Your task to perform on an android device: Open location settings Image 0: 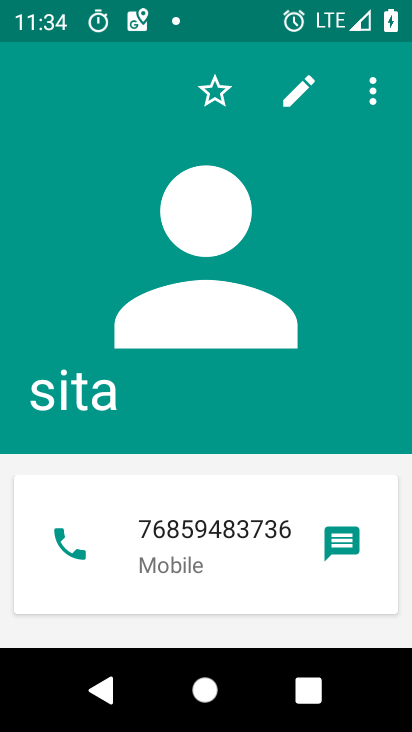
Step 0: press home button
Your task to perform on an android device: Open location settings Image 1: 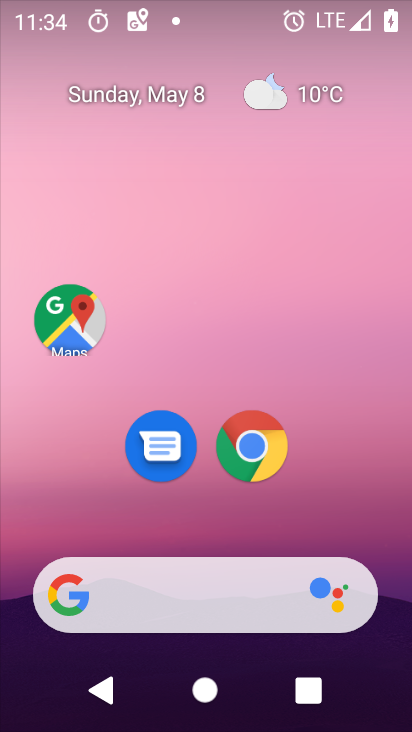
Step 1: drag from (367, 546) to (387, 15)
Your task to perform on an android device: Open location settings Image 2: 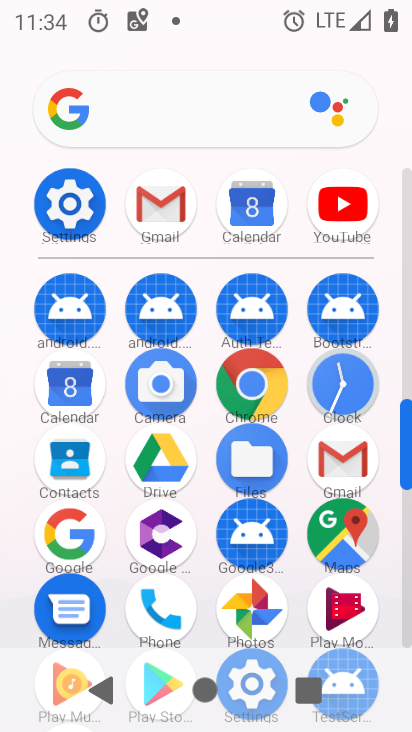
Step 2: click (66, 207)
Your task to perform on an android device: Open location settings Image 3: 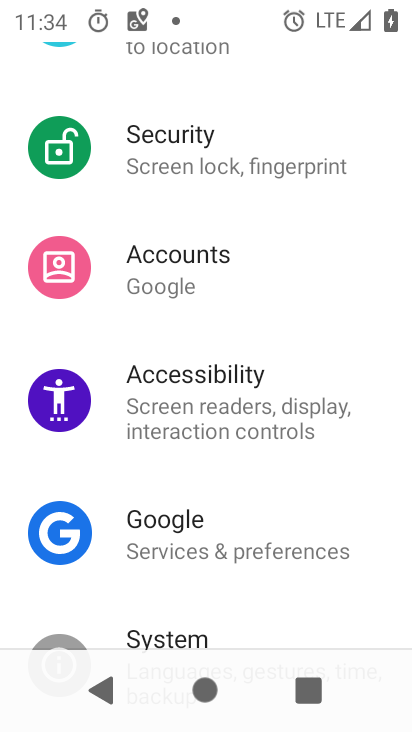
Step 3: drag from (352, 598) to (353, 154)
Your task to perform on an android device: Open location settings Image 4: 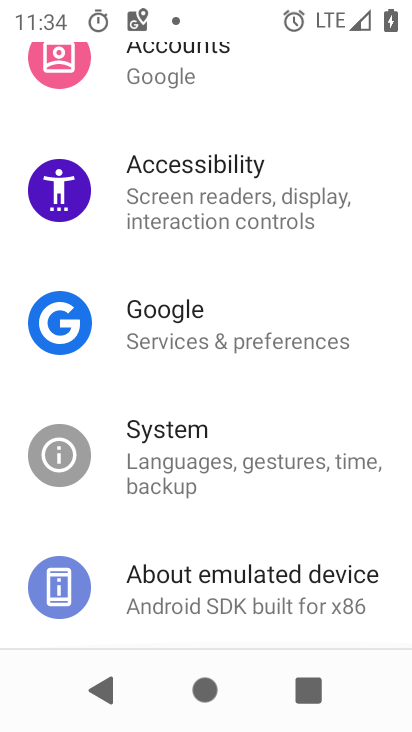
Step 4: drag from (353, 153) to (401, 688)
Your task to perform on an android device: Open location settings Image 5: 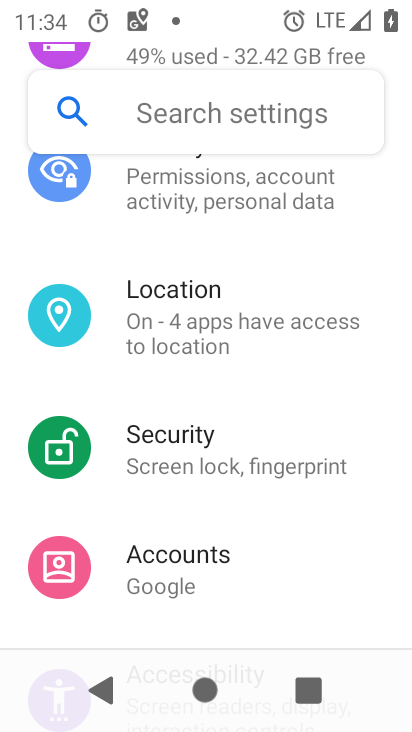
Step 5: click (152, 331)
Your task to perform on an android device: Open location settings Image 6: 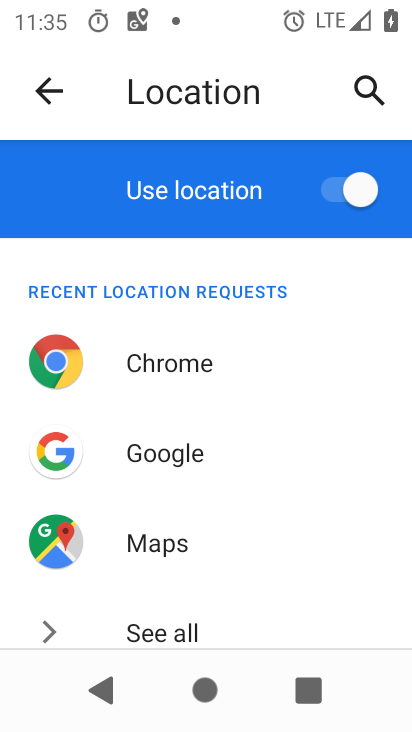
Step 6: task complete